Your task to perform on an android device: change notification settings in the gmail app Image 0: 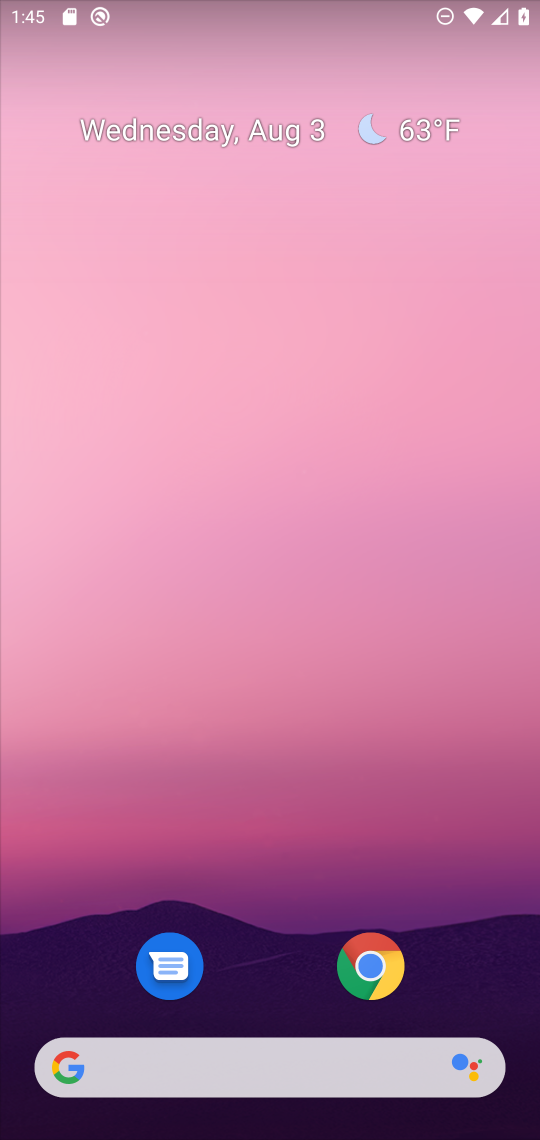
Step 0: drag from (279, 979) to (227, 383)
Your task to perform on an android device: change notification settings in the gmail app Image 1: 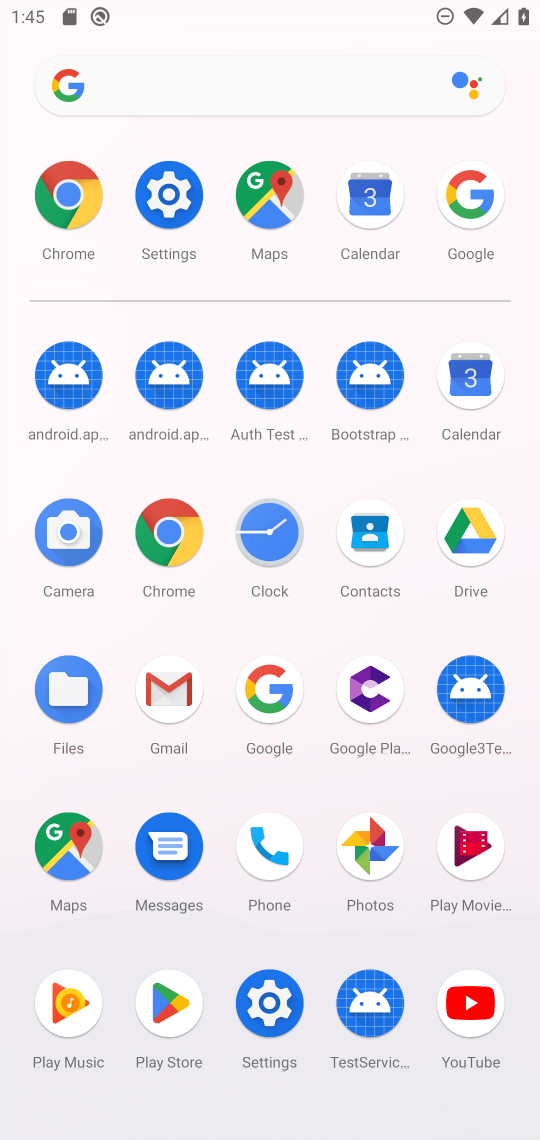
Step 1: click (146, 714)
Your task to perform on an android device: change notification settings in the gmail app Image 2: 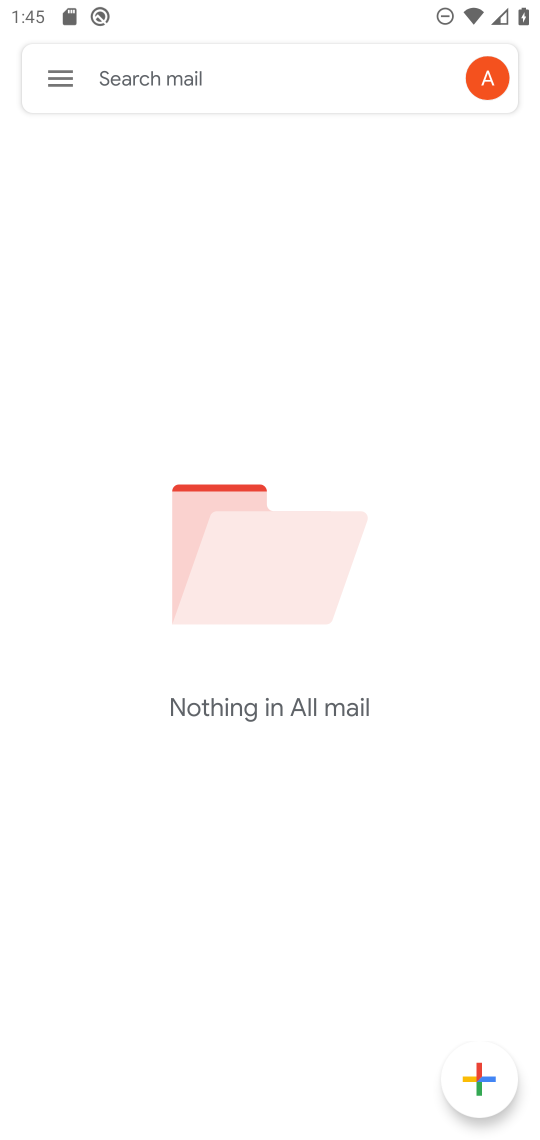
Step 2: click (72, 100)
Your task to perform on an android device: change notification settings in the gmail app Image 3: 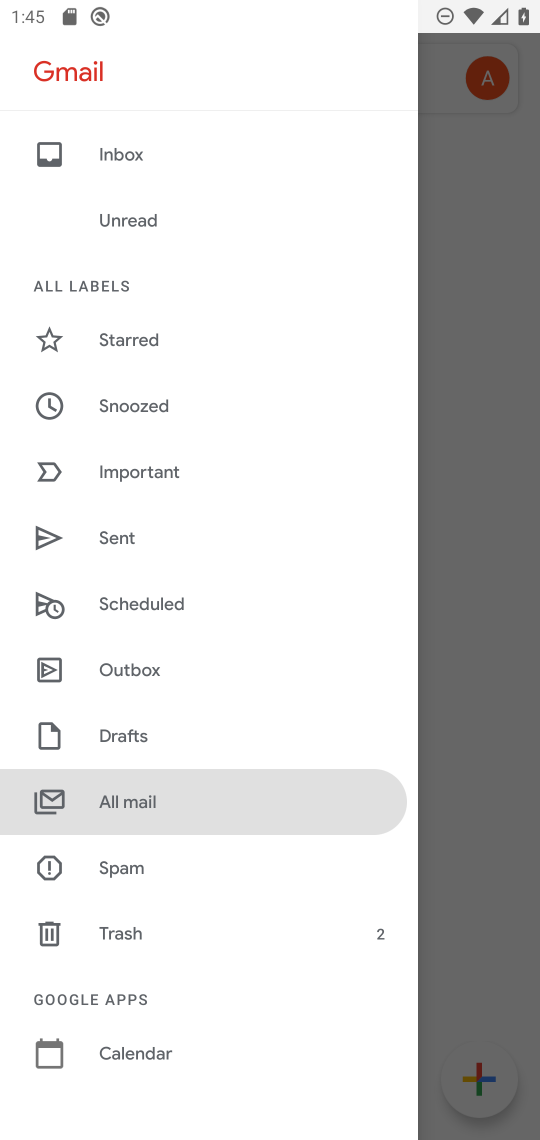
Step 3: drag from (147, 971) to (129, 628)
Your task to perform on an android device: change notification settings in the gmail app Image 4: 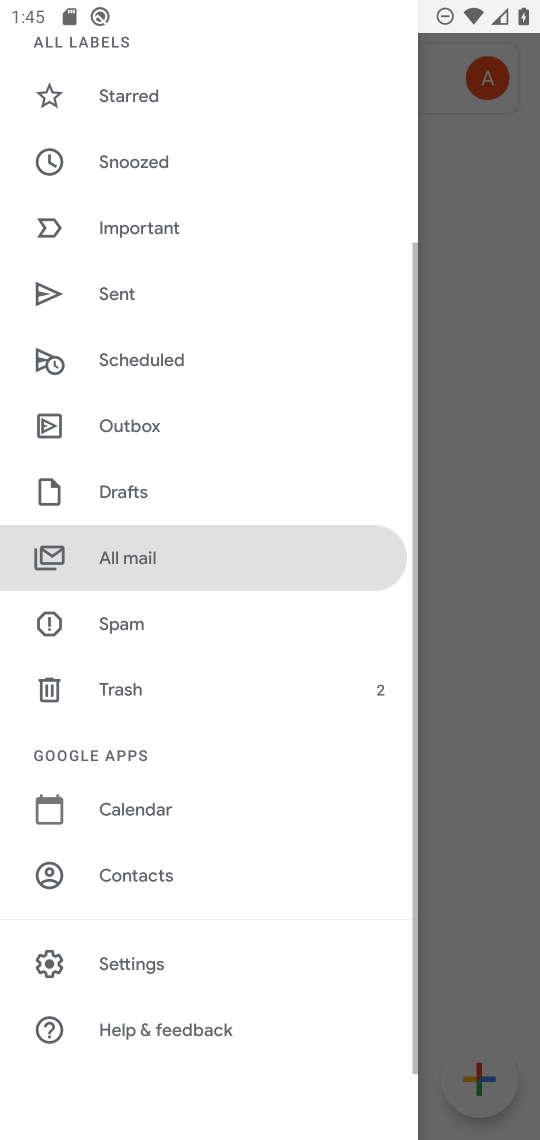
Step 4: click (159, 950)
Your task to perform on an android device: change notification settings in the gmail app Image 5: 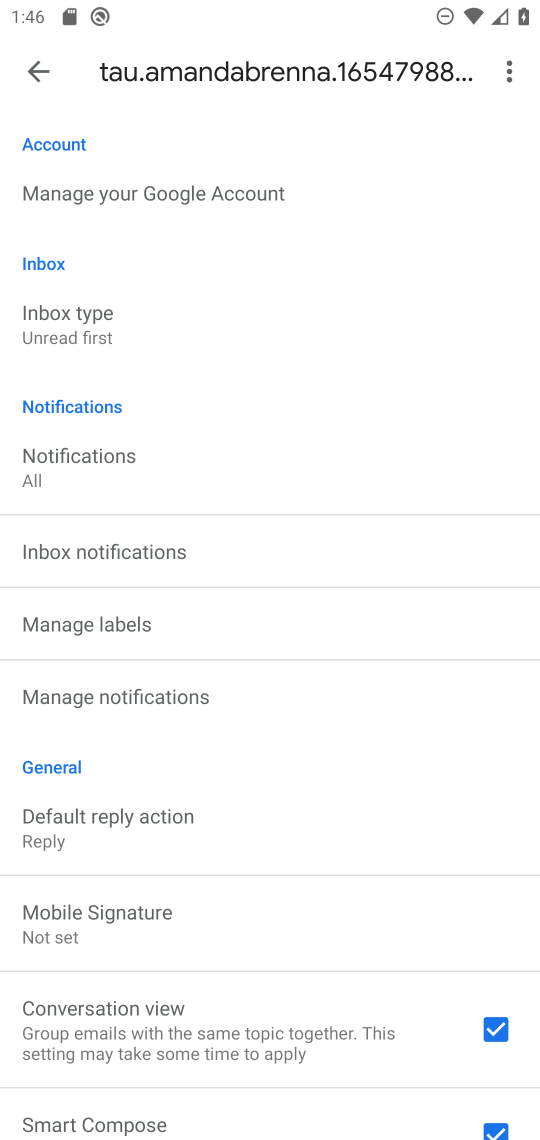
Step 5: click (170, 708)
Your task to perform on an android device: change notification settings in the gmail app Image 6: 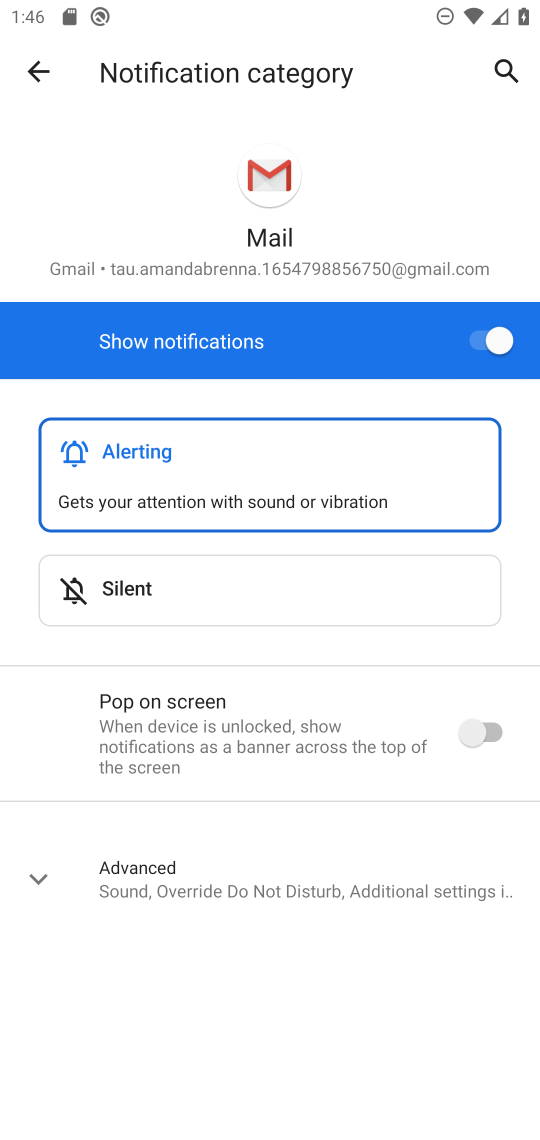
Step 6: click (469, 341)
Your task to perform on an android device: change notification settings in the gmail app Image 7: 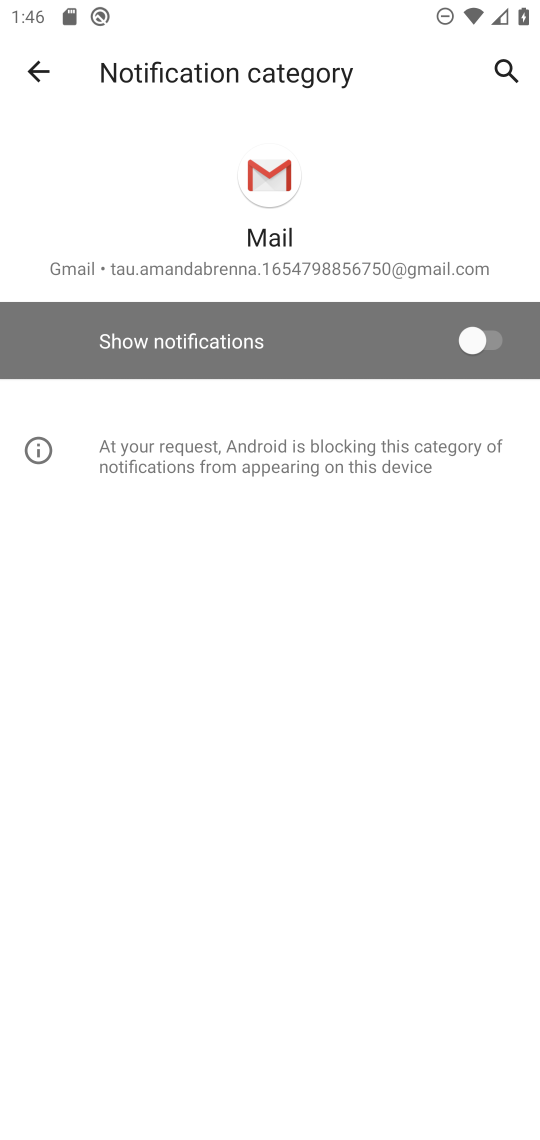
Step 7: task complete